Your task to perform on an android device: Open Google Image 0: 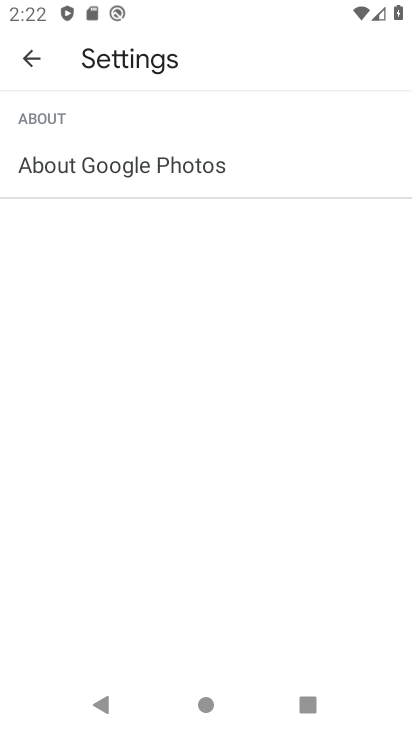
Step 0: press home button
Your task to perform on an android device: Open Google Image 1: 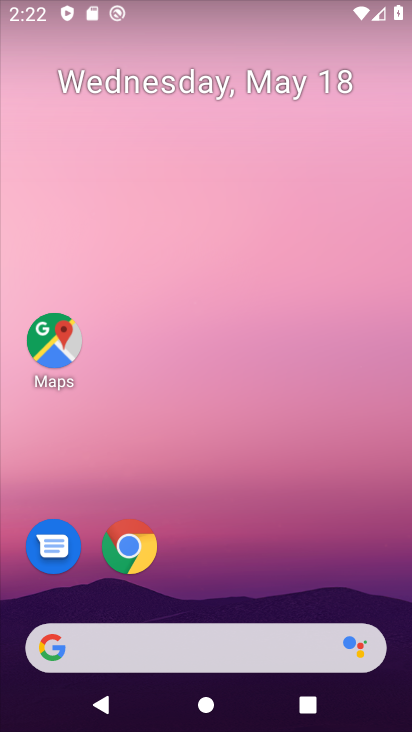
Step 1: drag from (233, 719) to (239, 163)
Your task to perform on an android device: Open Google Image 2: 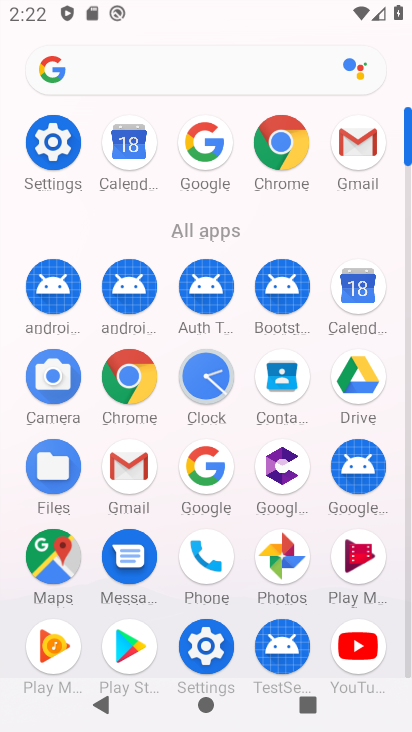
Step 2: click (208, 467)
Your task to perform on an android device: Open Google Image 3: 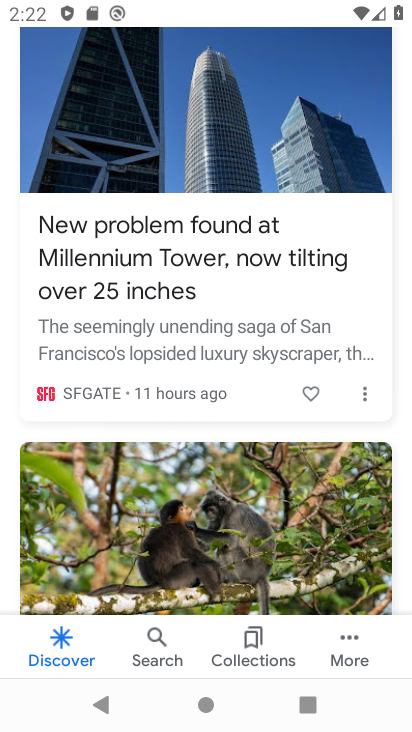
Step 3: task complete